Your task to perform on an android device: see tabs open on other devices in the chrome app Image 0: 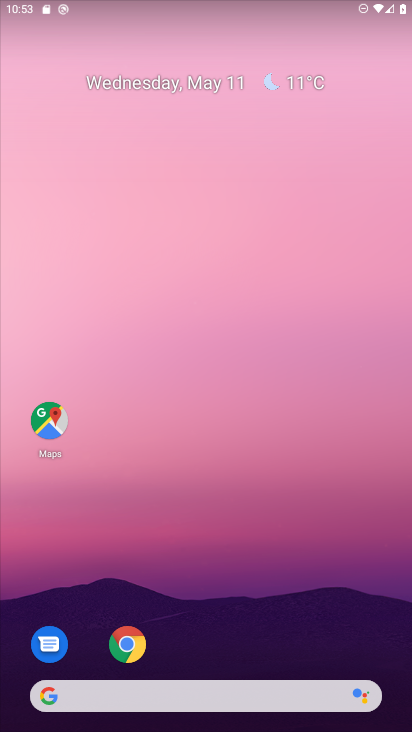
Step 0: click (126, 653)
Your task to perform on an android device: see tabs open on other devices in the chrome app Image 1: 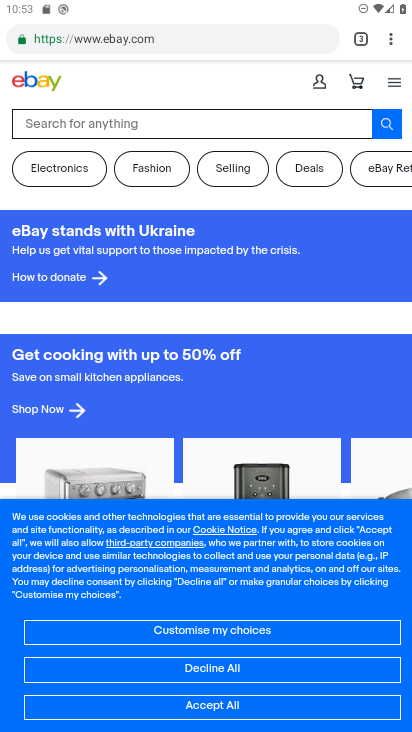
Step 1: click (392, 38)
Your task to perform on an android device: see tabs open on other devices in the chrome app Image 2: 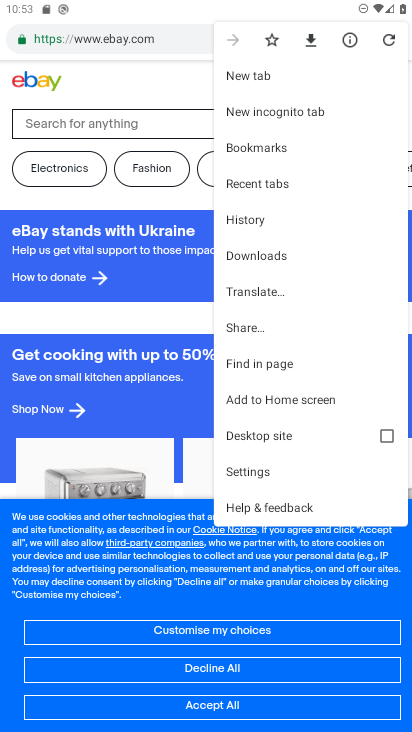
Step 2: click (256, 182)
Your task to perform on an android device: see tabs open on other devices in the chrome app Image 3: 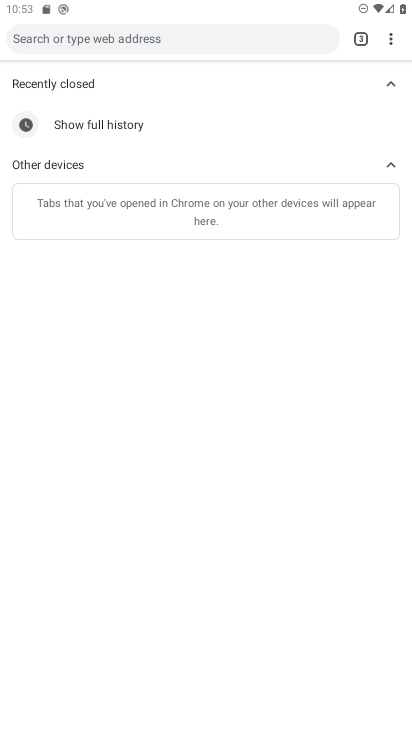
Step 3: task complete